Your task to perform on an android device: star an email in the gmail app Image 0: 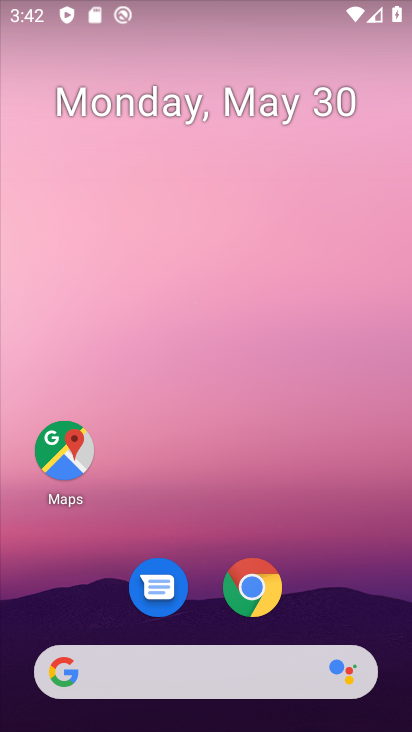
Step 0: drag from (352, 582) to (90, 0)
Your task to perform on an android device: star an email in the gmail app Image 1: 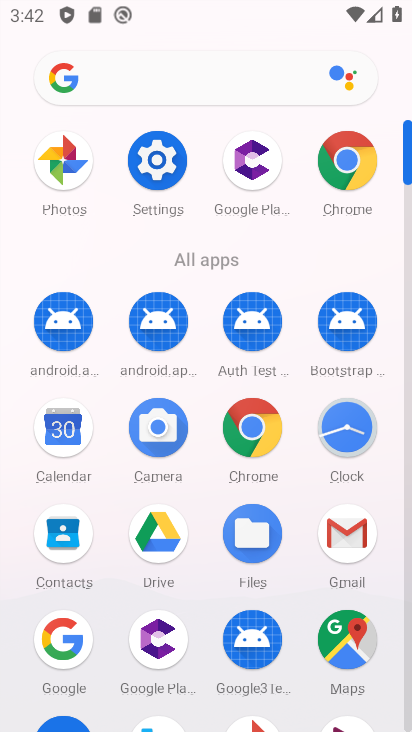
Step 1: click (350, 554)
Your task to perform on an android device: star an email in the gmail app Image 2: 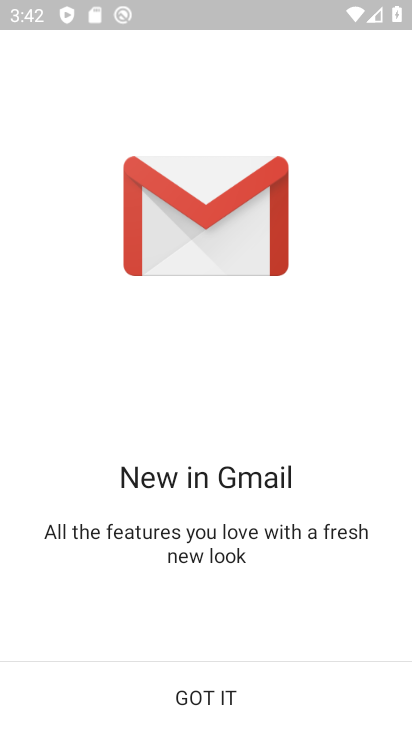
Step 2: click (209, 703)
Your task to perform on an android device: star an email in the gmail app Image 3: 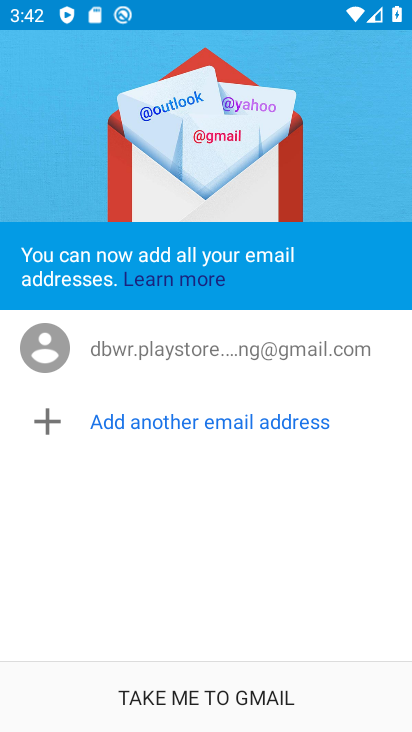
Step 3: click (209, 701)
Your task to perform on an android device: star an email in the gmail app Image 4: 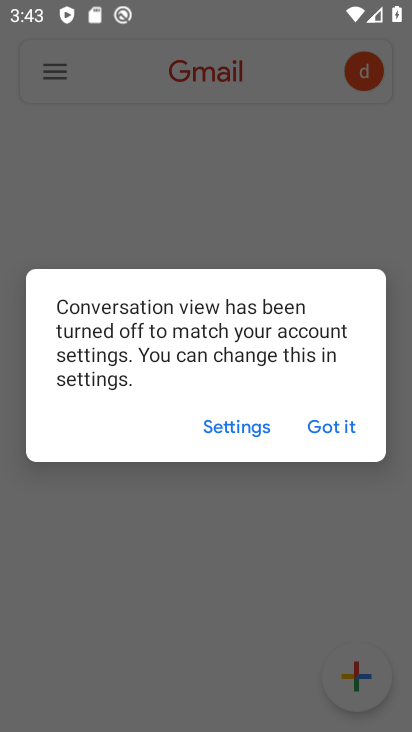
Step 4: click (332, 439)
Your task to perform on an android device: star an email in the gmail app Image 5: 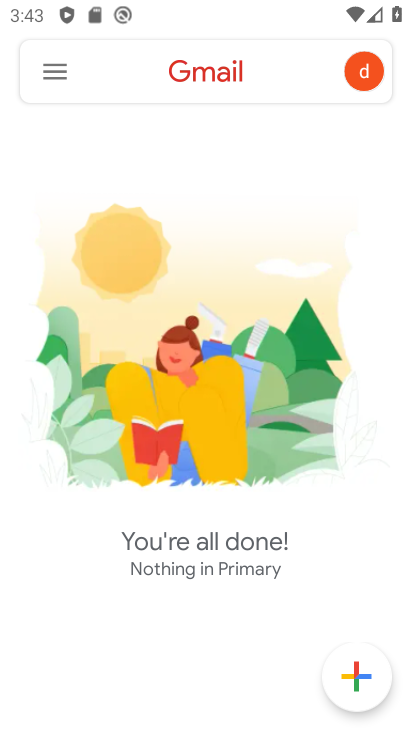
Step 5: click (56, 76)
Your task to perform on an android device: star an email in the gmail app Image 6: 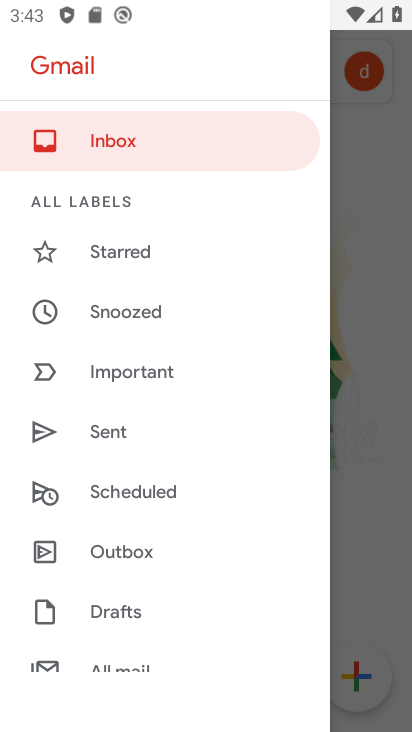
Step 6: task complete